Your task to perform on an android device: change the upload size in google photos Image 0: 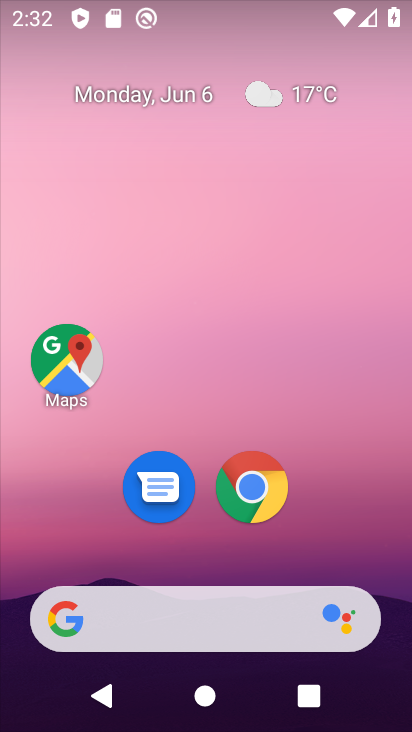
Step 0: drag from (123, 564) to (185, 100)
Your task to perform on an android device: change the upload size in google photos Image 1: 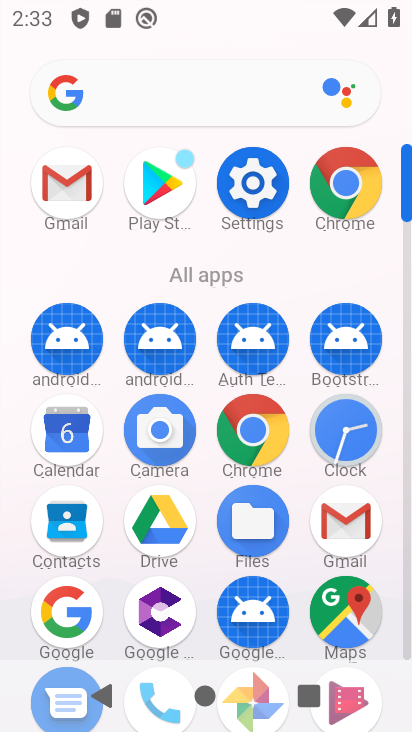
Step 1: drag from (181, 626) to (226, 422)
Your task to perform on an android device: change the upload size in google photos Image 2: 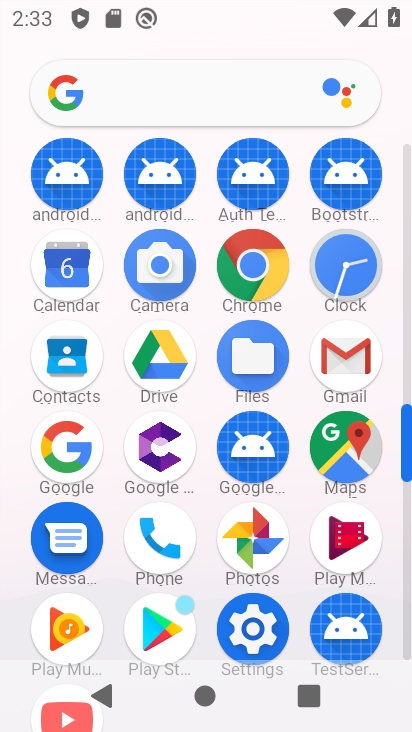
Step 2: click (251, 549)
Your task to perform on an android device: change the upload size in google photos Image 3: 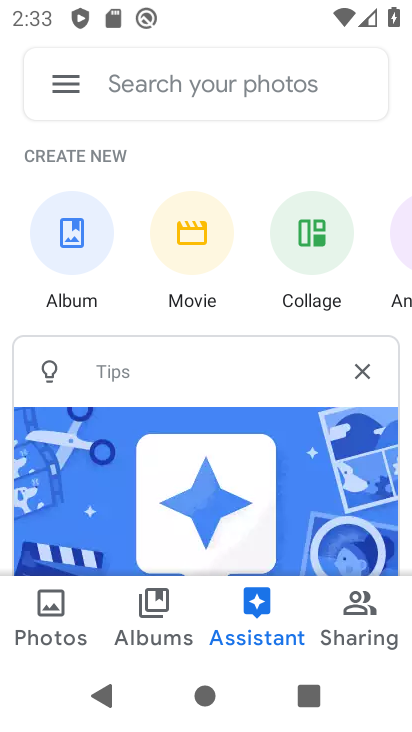
Step 3: click (80, 77)
Your task to perform on an android device: change the upload size in google photos Image 4: 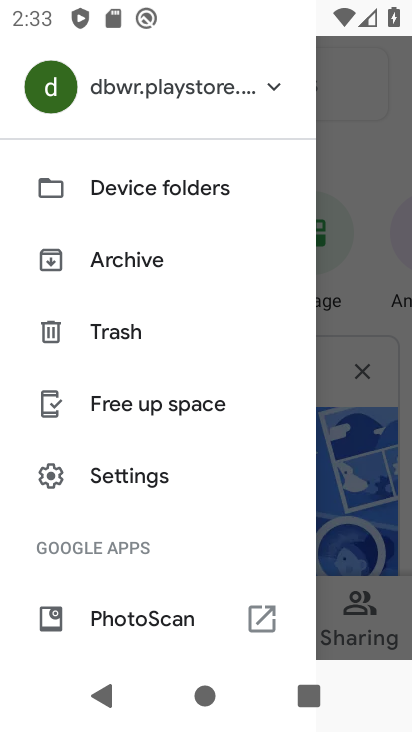
Step 4: drag from (106, 667) to (238, 263)
Your task to perform on an android device: change the upload size in google photos Image 5: 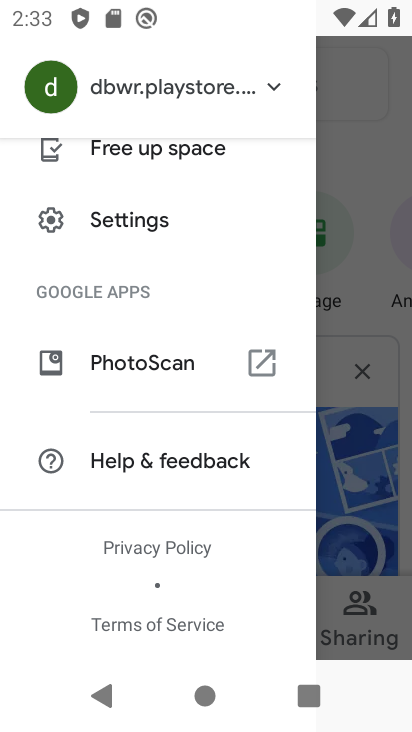
Step 5: click (185, 240)
Your task to perform on an android device: change the upload size in google photos Image 6: 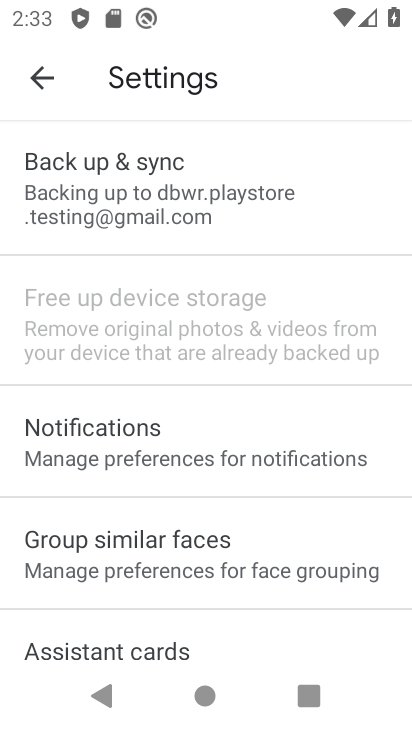
Step 6: drag from (156, 565) to (198, 636)
Your task to perform on an android device: change the upload size in google photos Image 7: 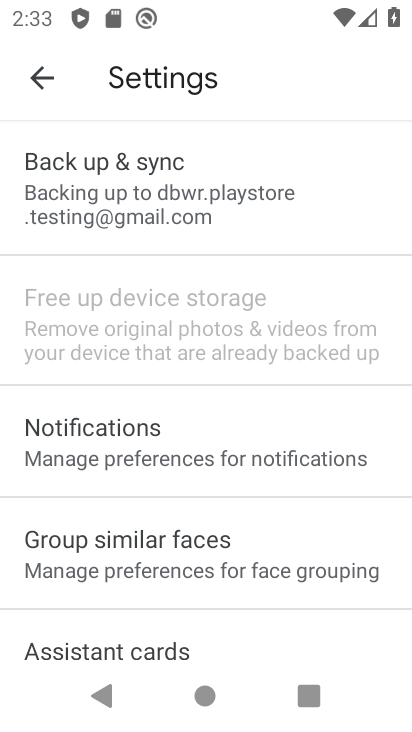
Step 7: click (242, 218)
Your task to perform on an android device: change the upload size in google photos Image 8: 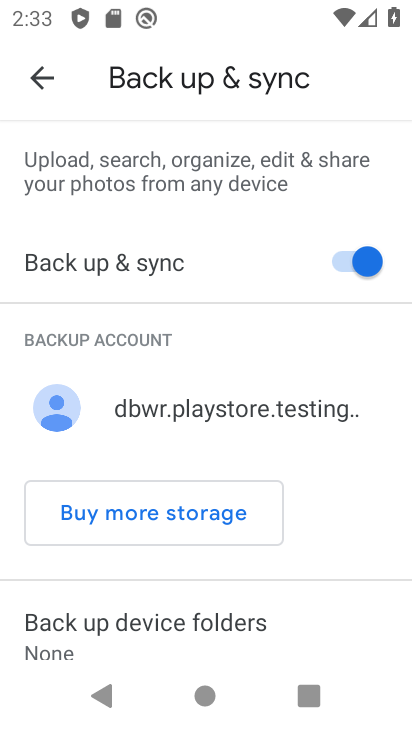
Step 8: drag from (171, 636) to (261, 313)
Your task to perform on an android device: change the upload size in google photos Image 9: 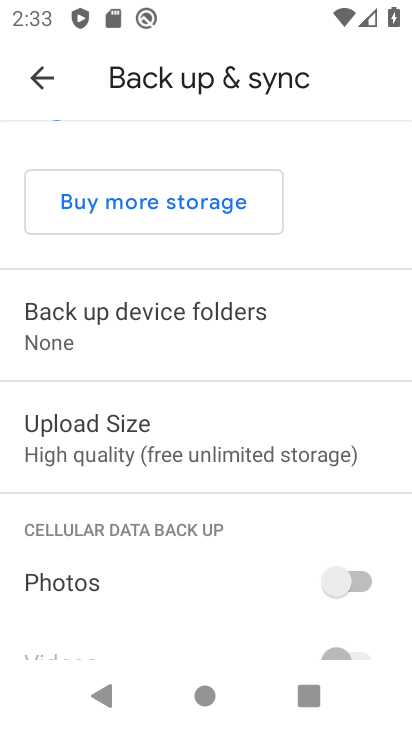
Step 9: click (197, 450)
Your task to perform on an android device: change the upload size in google photos Image 10: 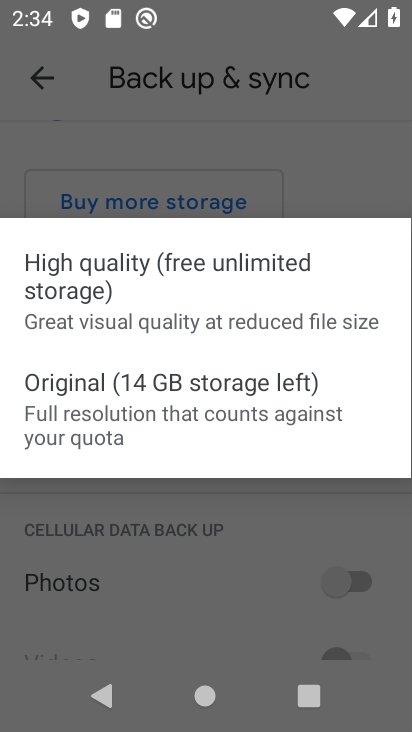
Step 10: click (233, 301)
Your task to perform on an android device: change the upload size in google photos Image 11: 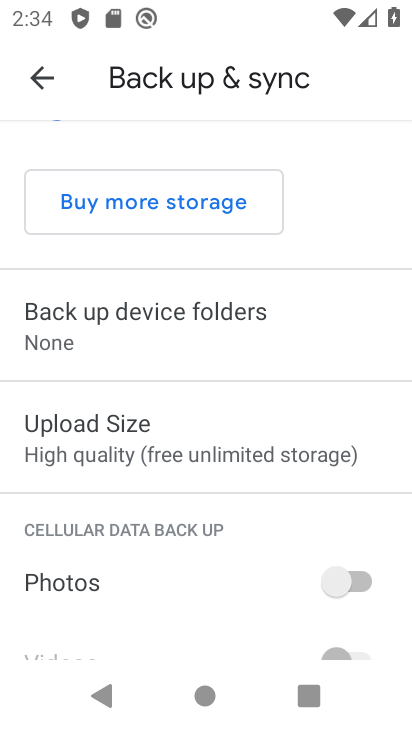
Step 11: task complete